Your task to perform on an android device: make emails show in primary in the gmail app Image 0: 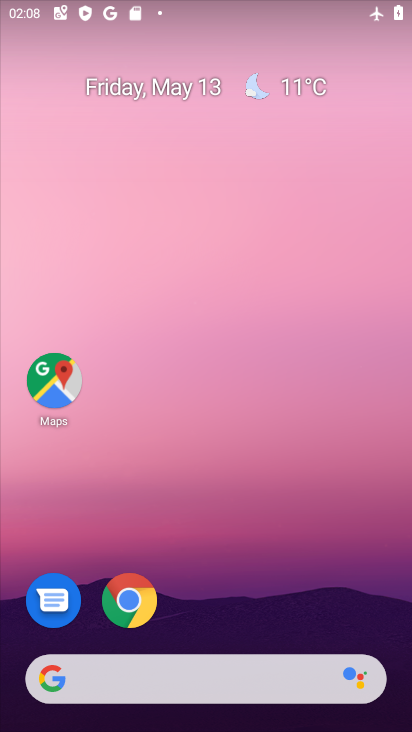
Step 0: drag from (203, 672) to (286, 253)
Your task to perform on an android device: make emails show in primary in the gmail app Image 1: 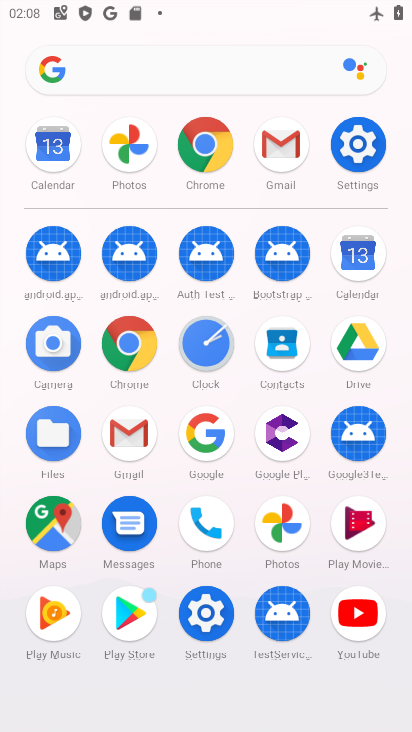
Step 1: click (130, 436)
Your task to perform on an android device: make emails show in primary in the gmail app Image 2: 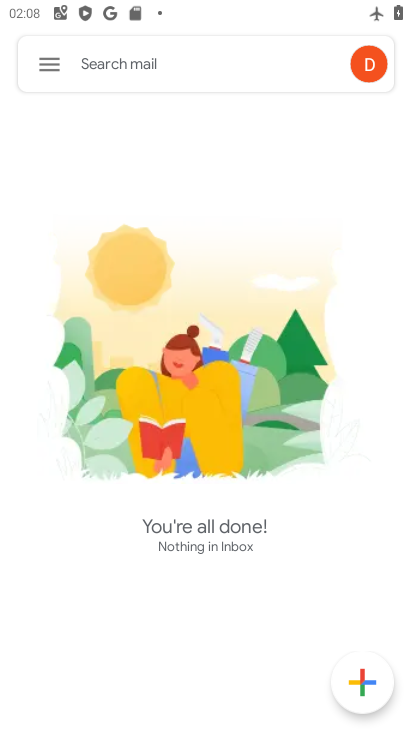
Step 2: click (48, 49)
Your task to perform on an android device: make emails show in primary in the gmail app Image 3: 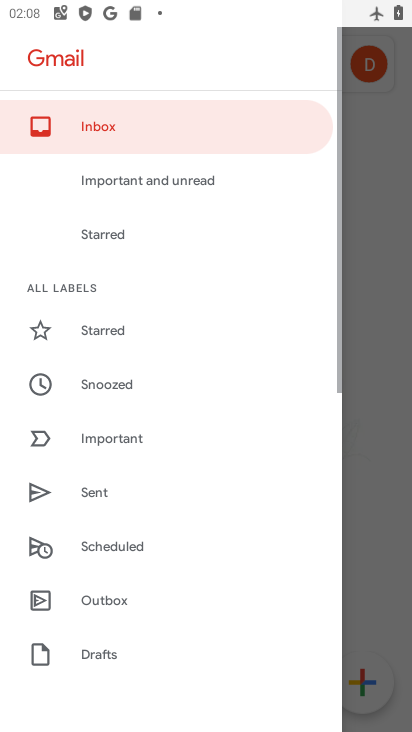
Step 3: drag from (149, 142) to (210, 527)
Your task to perform on an android device: make emails show in primary in the gmail app Image 4: 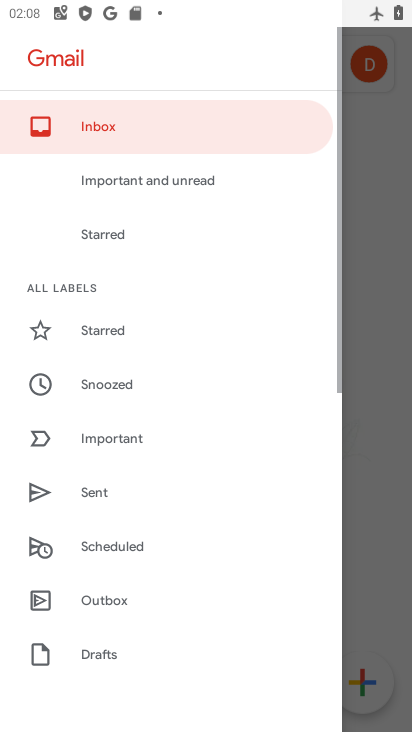
Step 4: click (147, 121)
Your task to perform on an android device: make emails show in primary in the gmail app Image 5: 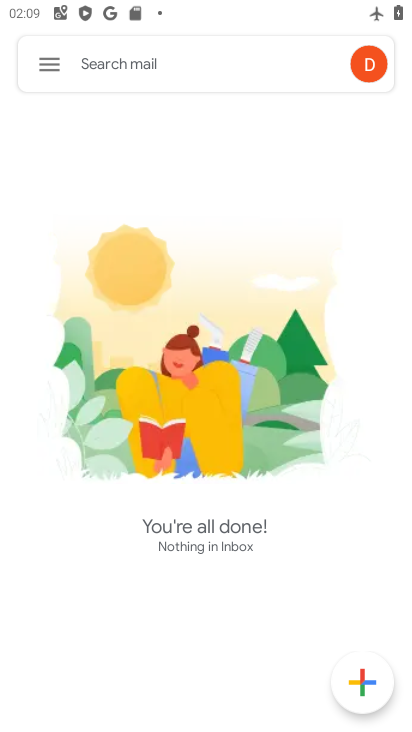
Step 5: click (44, 67)
Your task to perform on an android device: make emails show in primary in the gmail app Image 6: 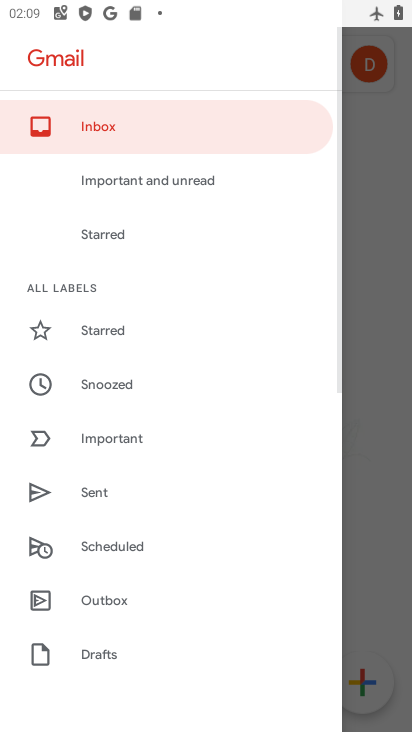
Step 6: click (101, 130)
Your task to perform on an android device: make emails show in primary in the gmail app Image 7: 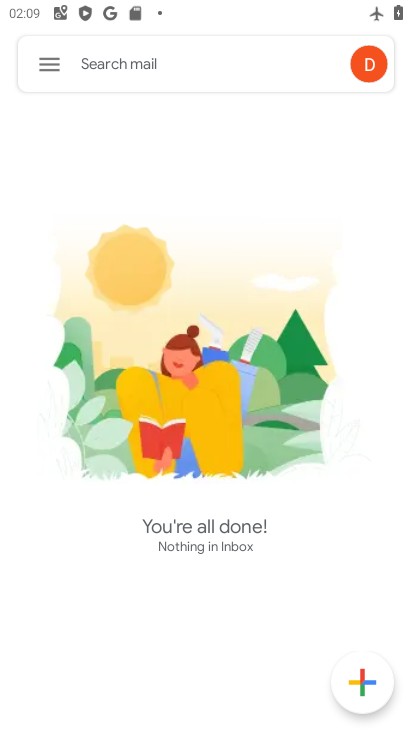
Step 7: task complete